Your task to perform on an android device: clear all cookies in the chrome app Image 0: 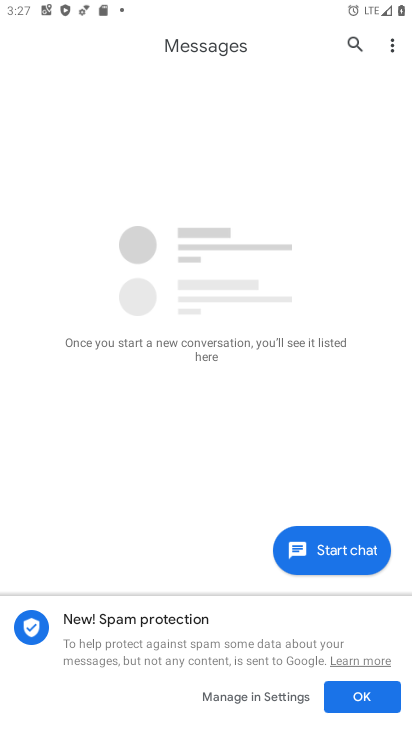
Step 0: press home button
Your task to perform on an android device: clear all cookies in the chrome app Image 1: 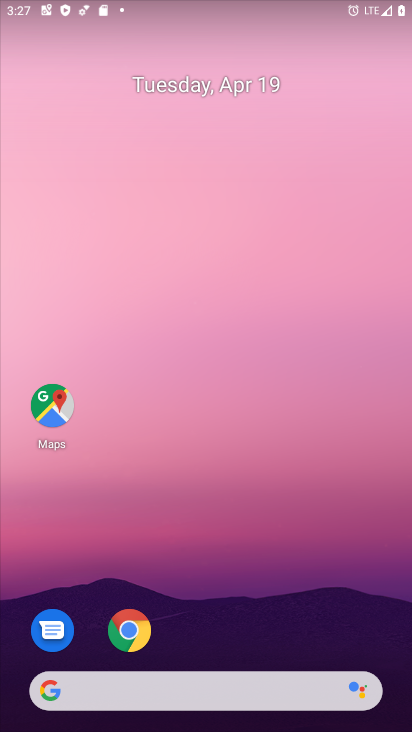
Step 1: click (127, 632)
Your task to perform on an android device: clear all cookies in the chrome app Image 2: 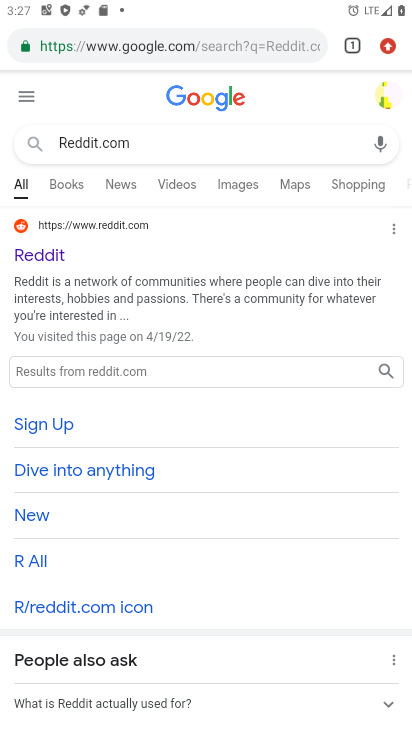
Step 2: click (386, 44)
Your task to perform on an android device: clear all cookies in the chrome app Image 3: 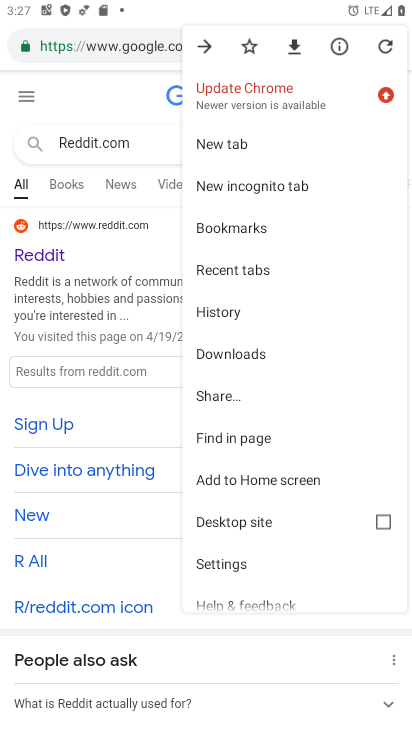
Step 3: click (227, 562)
Your task to perform on an android device: clear all cookies in the chrome app Image 4: 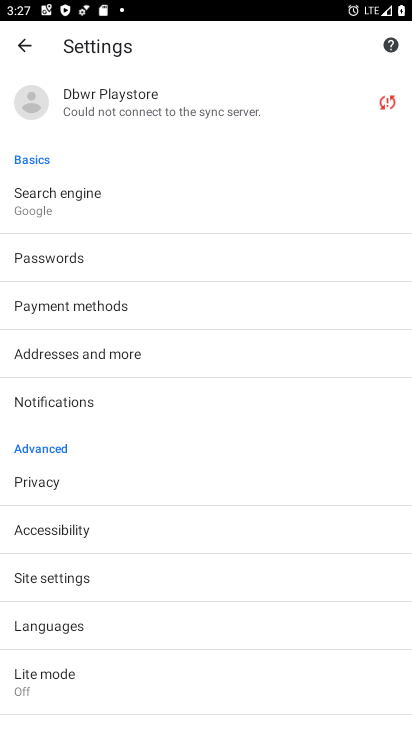
Step 4: click (44, 480)
Your task to perform on an android device: clear all cookies in the chrome app Image 5: 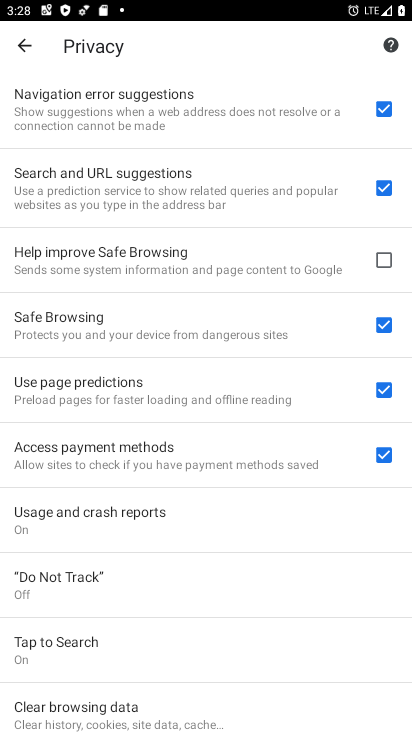
Step 5: drag from (122, 698) to (140, 246)
Your task to perform on an android device: clear all cookies in the chrome app Image 6: 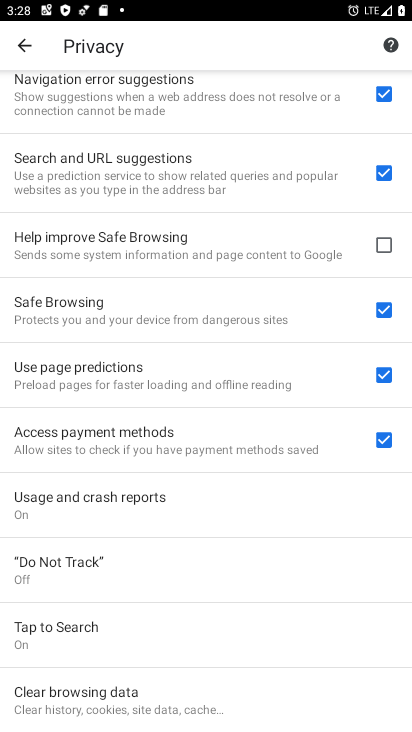
Step 6: click (112, 678)
Your task to perform on an android device: clear all cookies in the chrome app Image 7: 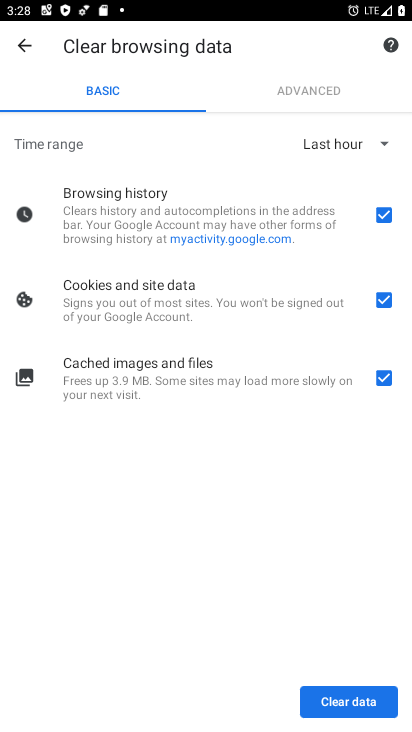
Step 7: click (382, 207)
Your task to perform on an android device: clear all cookies in the chrome app Image 8: 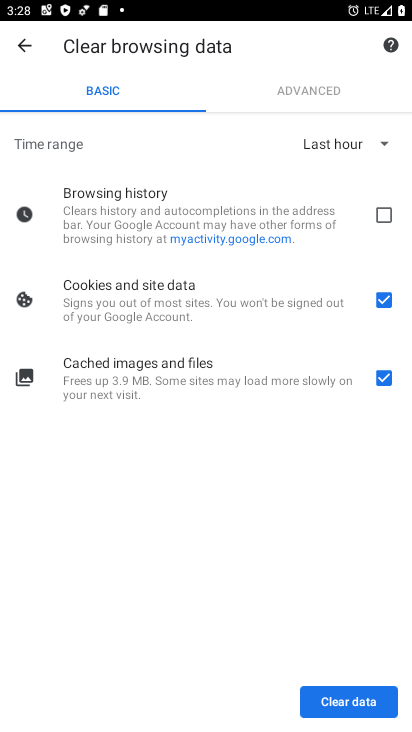
Step 8: click (386, 375)
Your task to perform on an android device: clear all cookies in the chrome app Image 9: 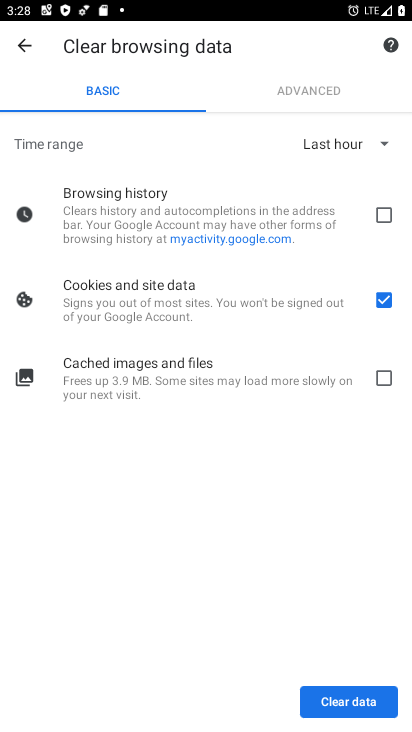
Step 9: click (347, 698)
Your task to perform on an android device: clear all cookies in the chrome app Image 10: 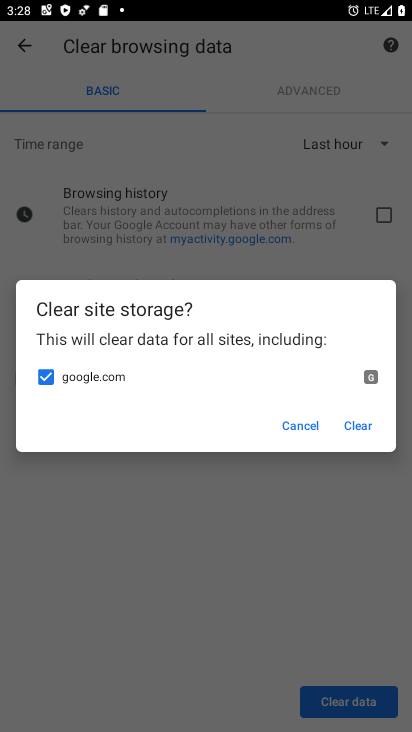
Step 10: click (363, 423)
Your task to perform on an android device: clear all cookies in the chrome app Image 11: 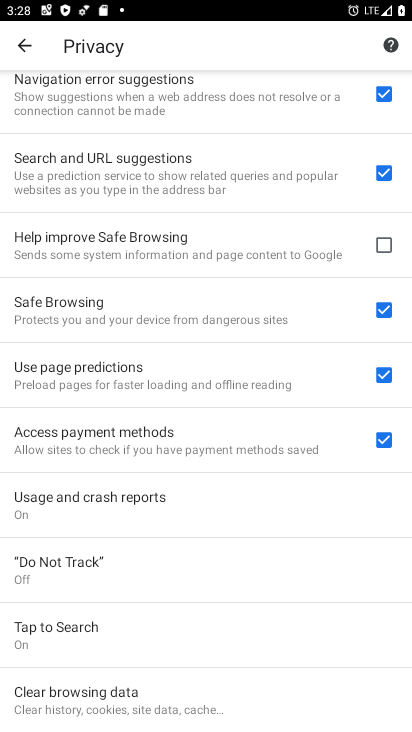
Step 11: task complete